Your task to perform on an android device: Set the phone to "Do not disturb". Image 0: 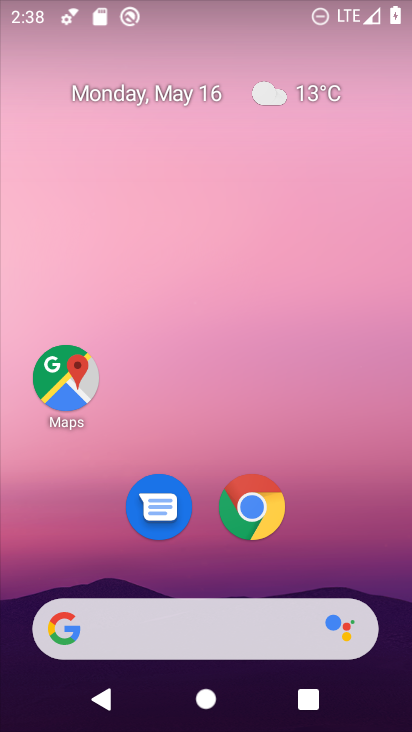
Step 0: drag from (307, 452) to (266, 40)
Your task to perform on an android device: Set the phone to "Do not disturb". Image 1: 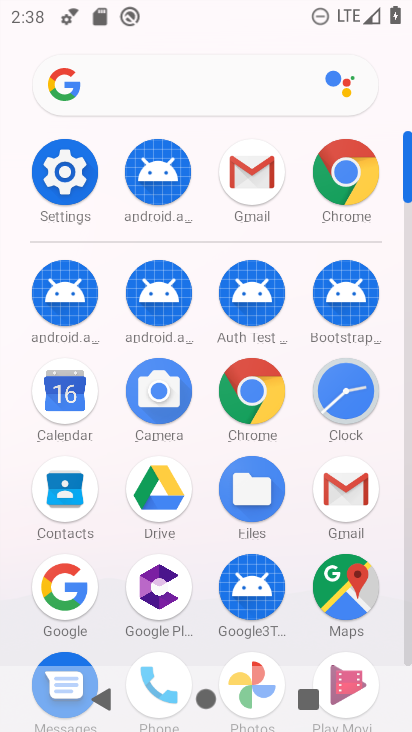
Step 1: click (81, 171)
Your task to perform on an android device: Set the phone to "Do not disturb". Image 2: 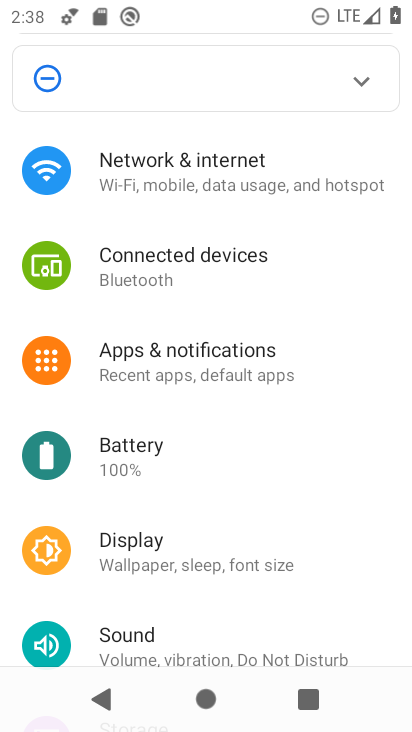
Step 2: drag from (230, 609) to (230, 446)
Your task to perform on an android device: Set the phone to "Do not disturb". Image 3: 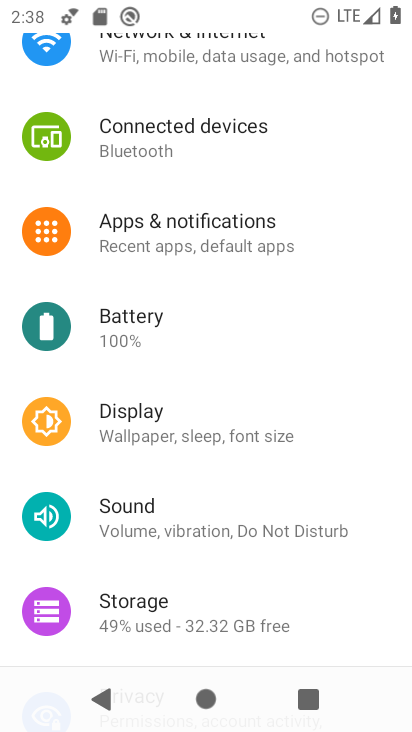
Step 3: click (192, 498)
Your task to perform on an android device: Set the phone to "Do not disturb". Image 4: 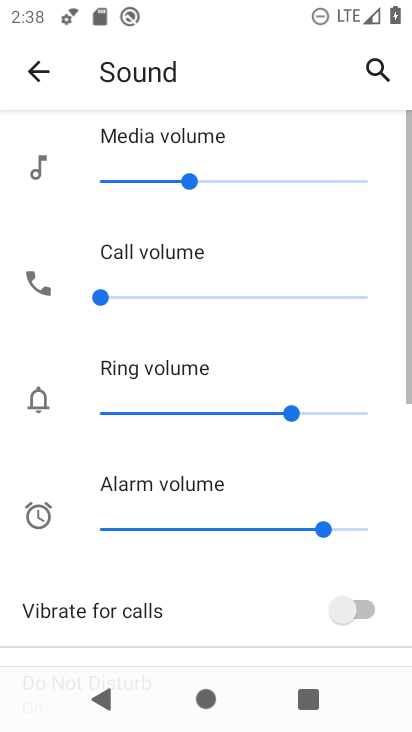
Step 4: task complete